Your task to perform on an android device: delete location history Image 0: 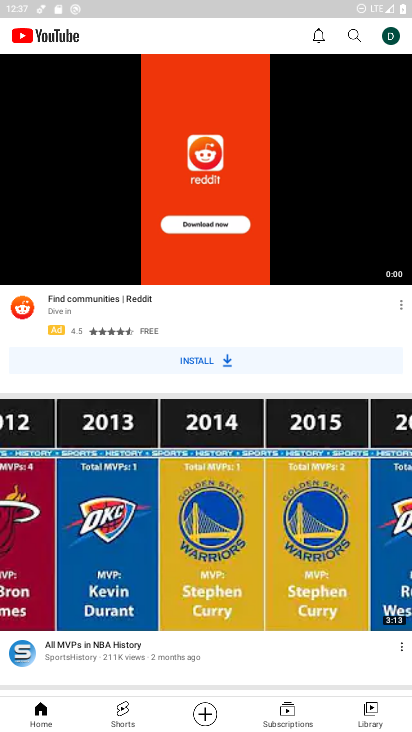
Step 0: drag from (243, 666) to (300, 149)
Your task to perform on an android device: delete location history Image 1: 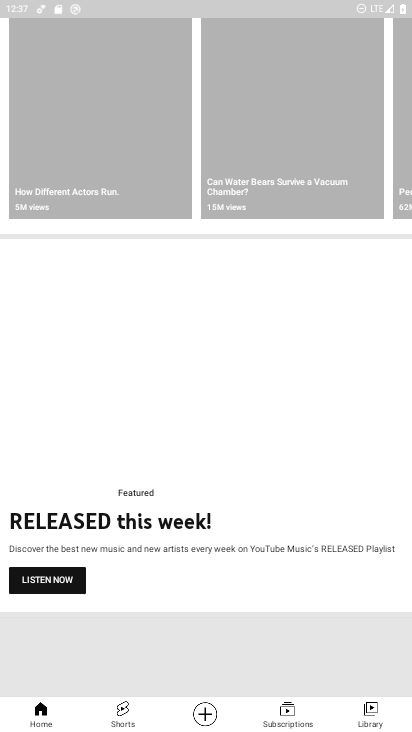
Step 1: drag from (245, 298) to (390, 620)
Your task to perform on an android device: delete location history Image 2: 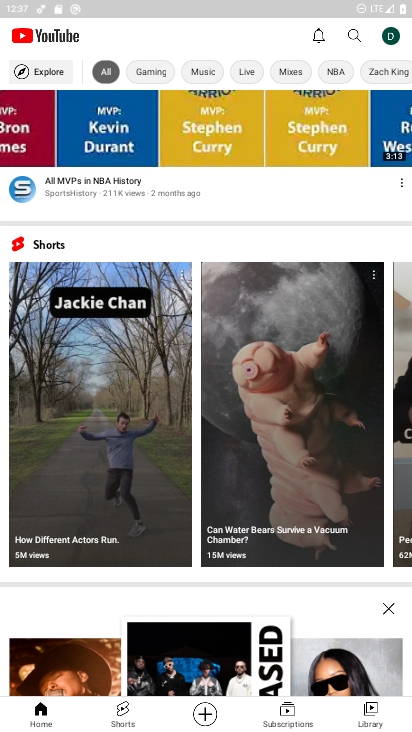
Step 2: press home button
Your task to perform on an android device: delete location history Image 3: 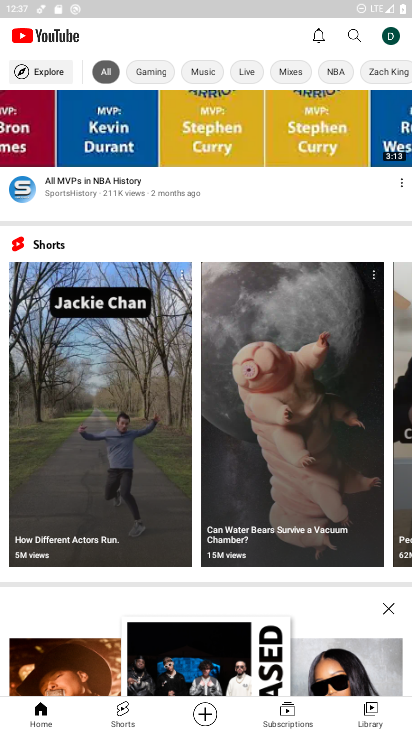
Step 3: click (406, 355)
Your task to perform on an android device: delete location history Image 4: 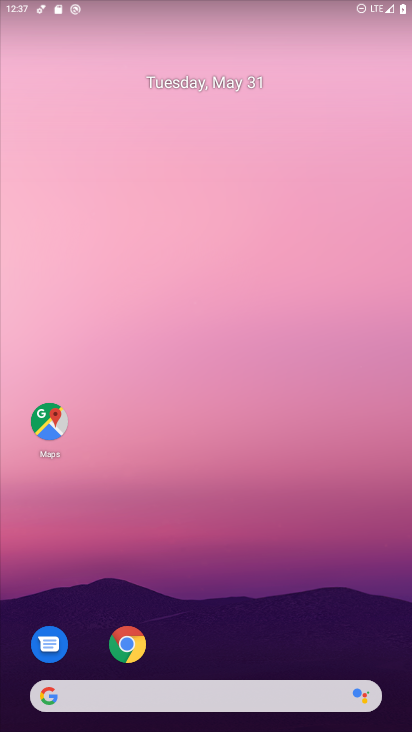
Step 4: drag from (187, 577) to (289, 156)
Your task to perform on an android device: delete location history Image 5: 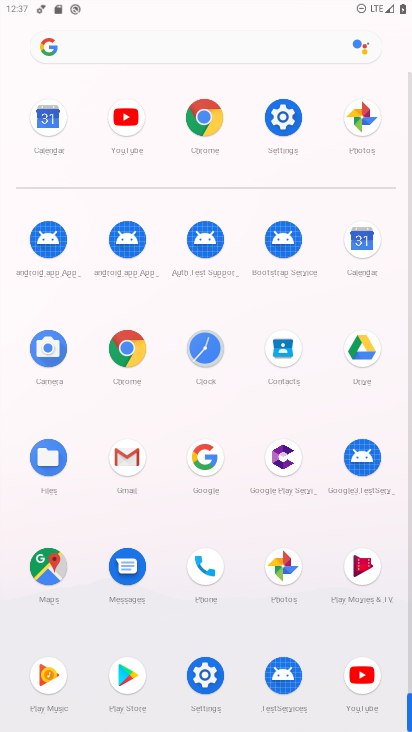
Step 5: click (279, 113)
Your task to perform on an android device: delete location history Image 6: 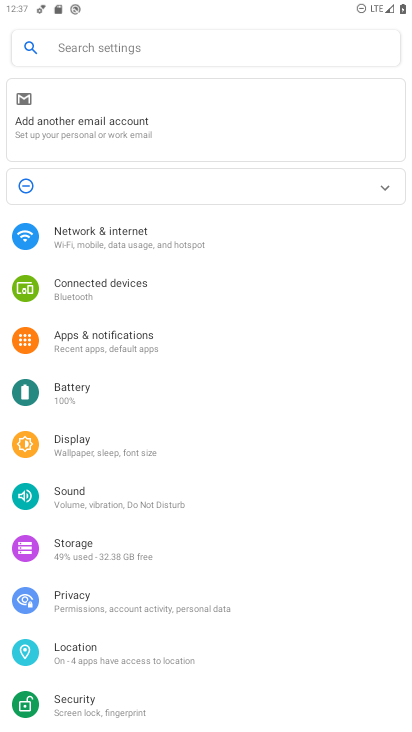
Step 6: click (88, 651)
Your task to perform on an android device: delete location history Image 7: 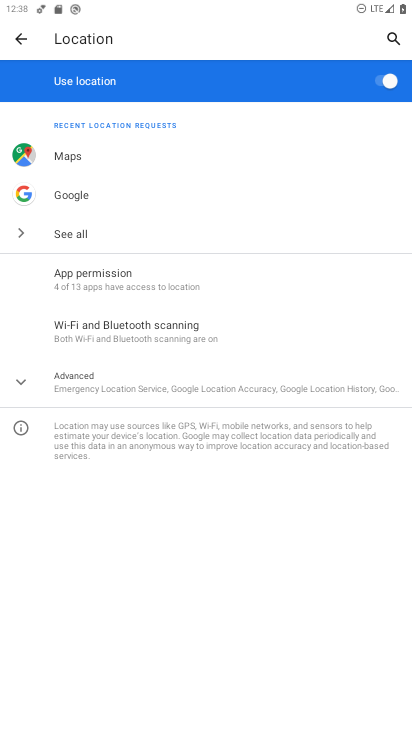
Step 7: click (108, 391)
Your task to perform on an android device: delete location history Image 8: 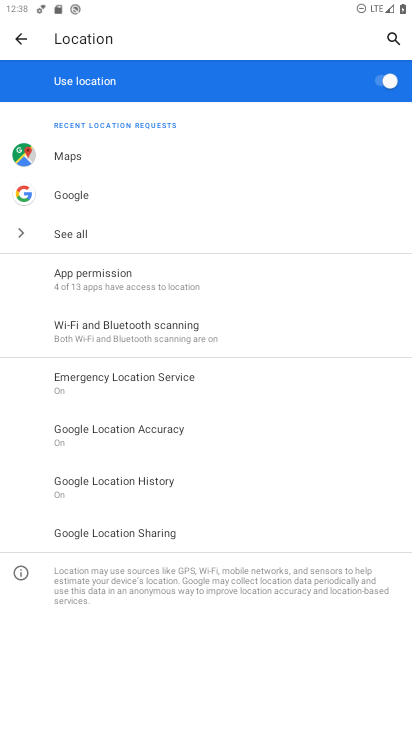
Step 8: click (134, 483)
Your task to perform on an android device: delete location history Image 9: 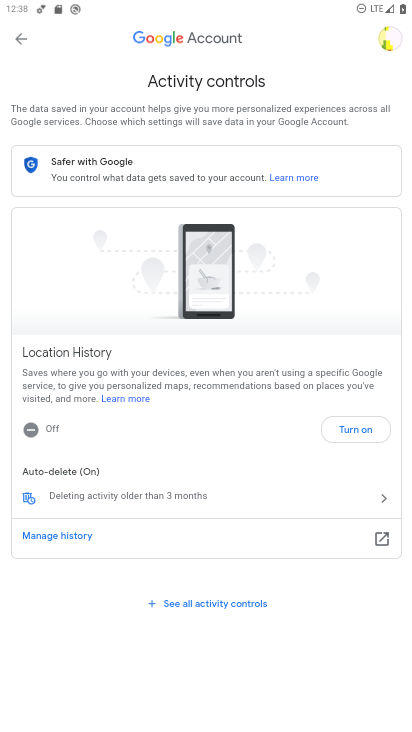
Step 9: click (21, 501)
Your task to perform on an android device: delete location history Image 10: 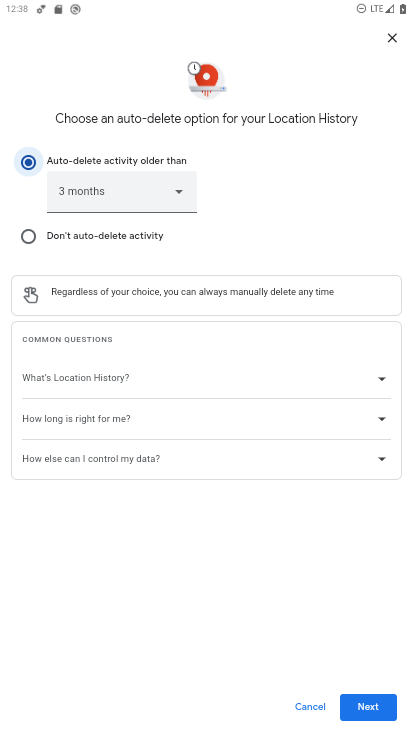
Step 10: click (379, 710)
Your task to perform on an android device: delete location history Image 11: 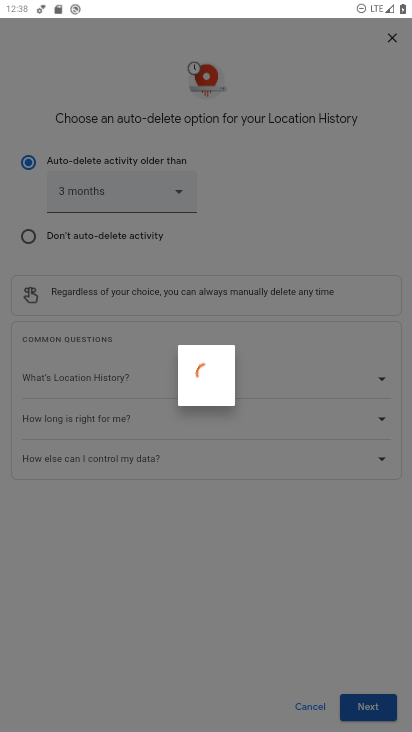
Step 11: click (362, 713)
Your task to perform on an android device: delete location history Image 12: 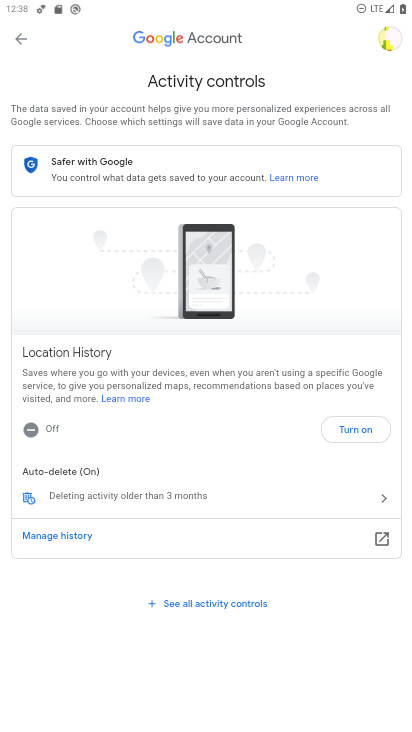
Step 12: task complete